Your task to perform on an android device: turn on bluetooth scan Image 0: 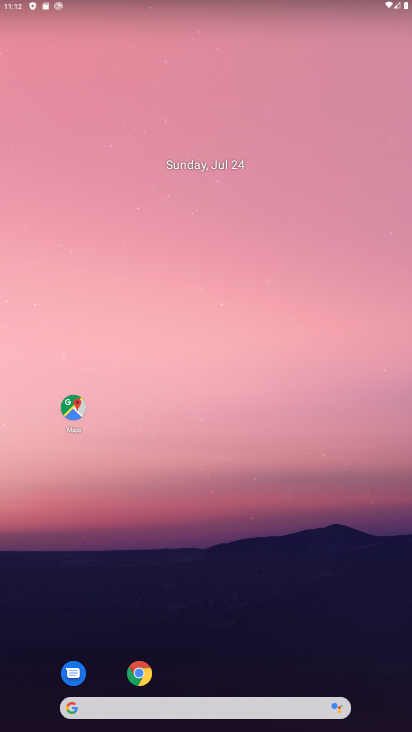
Step 0: drag from (175, 706) to (287, 153)
Your task to perform on an android device: turn on bluetooth scan Image 1: 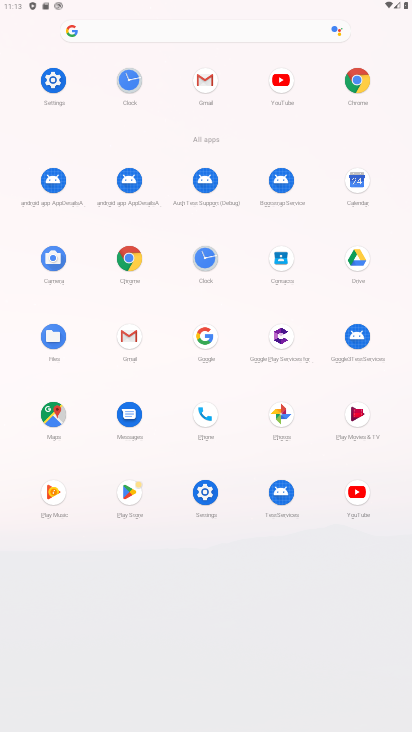
Step 1: click (206, 492)
Your task to perform on an android device: turn on bluetooth scan Image 2: 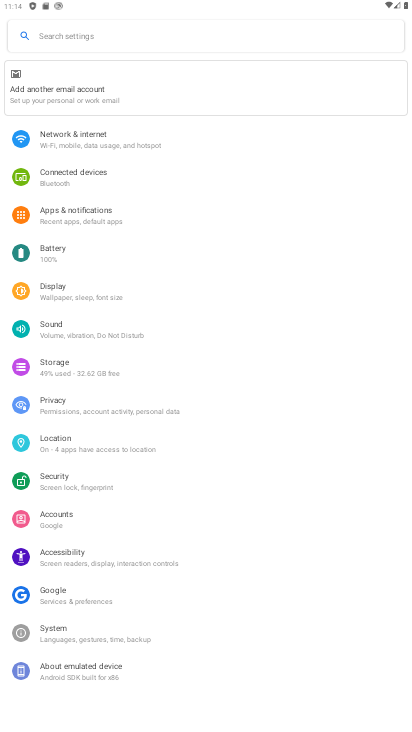
Step 2: click (61, 442)
Your task to perform on an android device: turn on bluetooth scan Image 3: 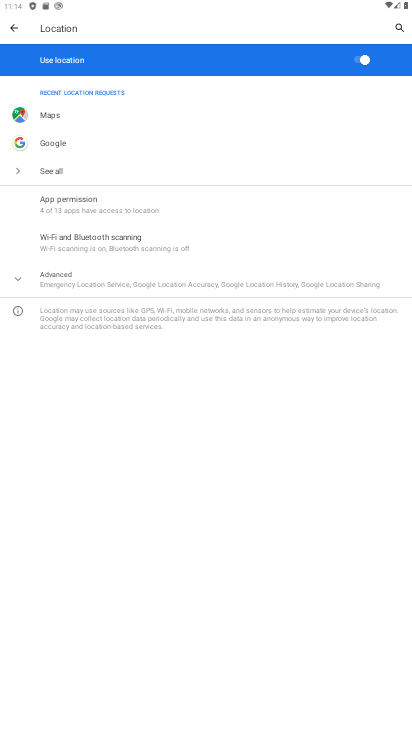
Step 3: click (153, 242)
Your task to perform on an android device: turn on bluetooth scan Image 4: 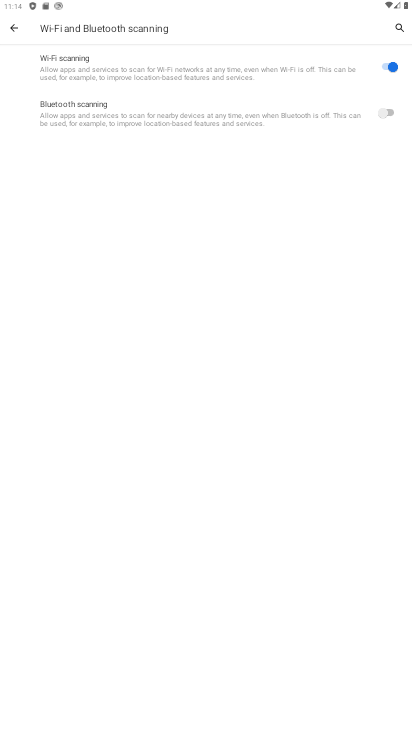
Step 4: click (381, 112)
Your task to perform on an android device: turn on bluetooth scan Image 5: 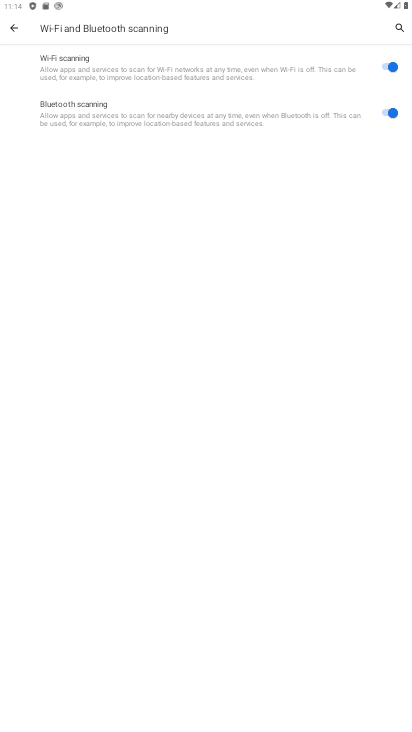
Step 5: task complete